Your task to perform on an android device: turn on notifications settings in the gmail app Image 0: 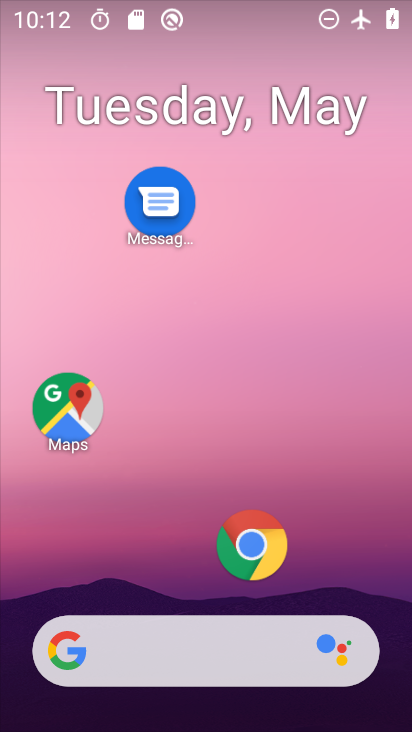
Step 0: drag from (196, 594) to (185, 229)
Your task to perform on an android device: turn on notifications settings in the gmail app Image 1: 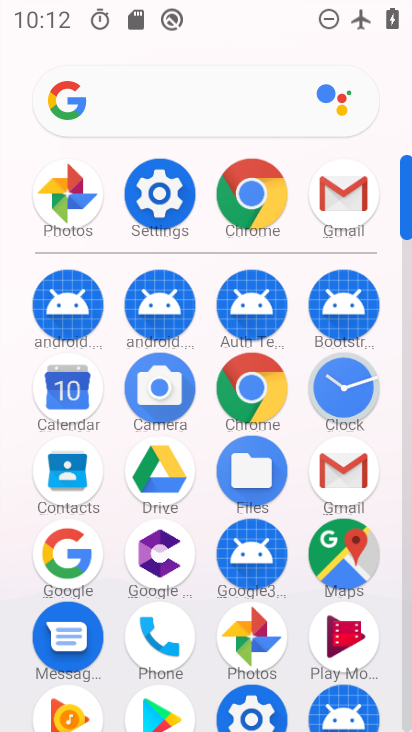
Step 1: click (343, 214)
Your task to perform on an android device: turn on notifications settings in the gmail app Image 2: 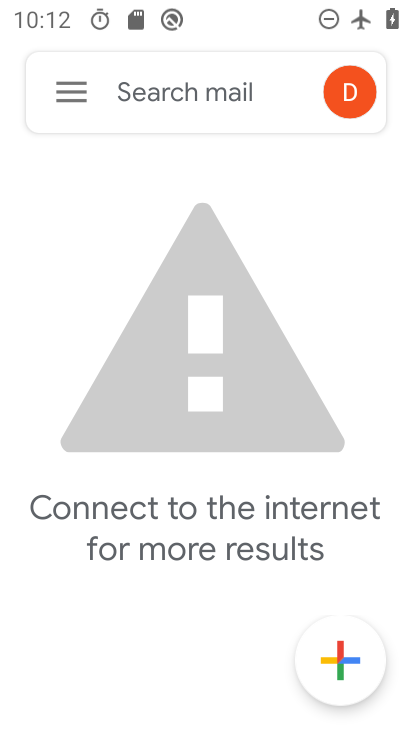
Step 2: click (89, 87)
Your task to perform on an android device: turn on notifications settings in the gmail app Image 3: 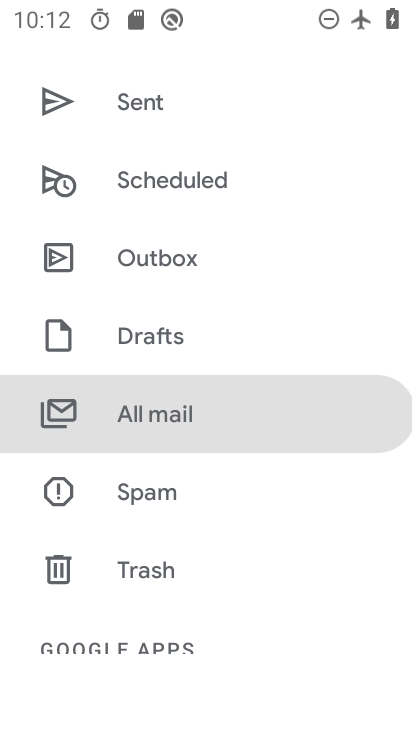
Step 3: drag from (175, 625) to (230, 269)
Your task to perform on an android device: turn on notifications settings in the gmail app Image 4: 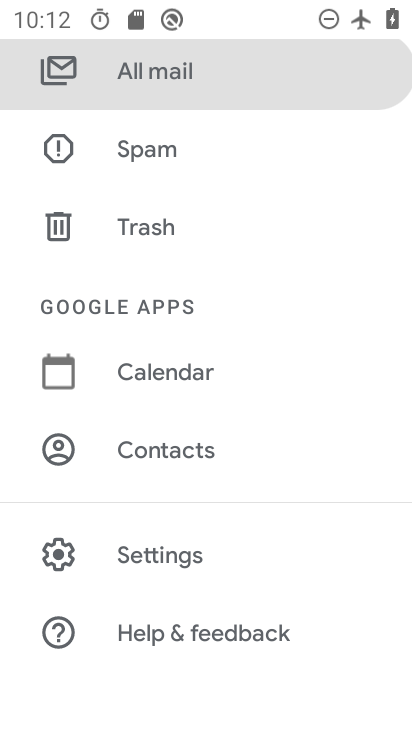
Step 4: click (217, 547)
Your task to perform on an android device: turn on notifications settings in the gmail app Image 5: 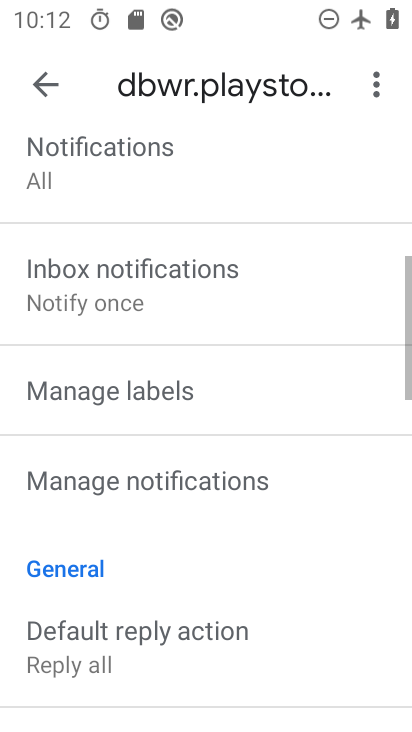
Step 5: drag from (226, 595) to (243, 495)
Your task to perform on an android device: turn on notifications settings in the gmail app Image 6: 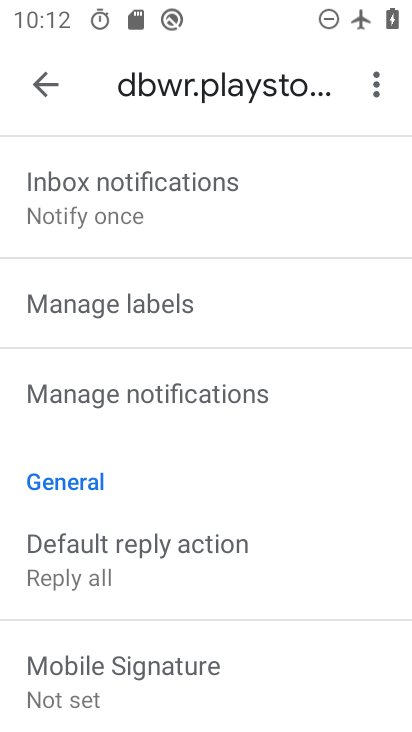
Step 6: click (183, 388)
Your task to perform on an android device: turn on notifications settings in the gmail app Image 7: 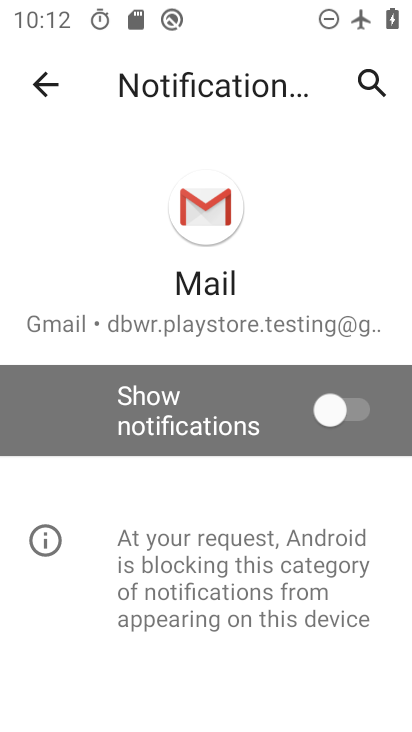
Step 7: click (354, 418)
Your task to perform on an android device: turn on notifications settings in the gmail app Image 8: 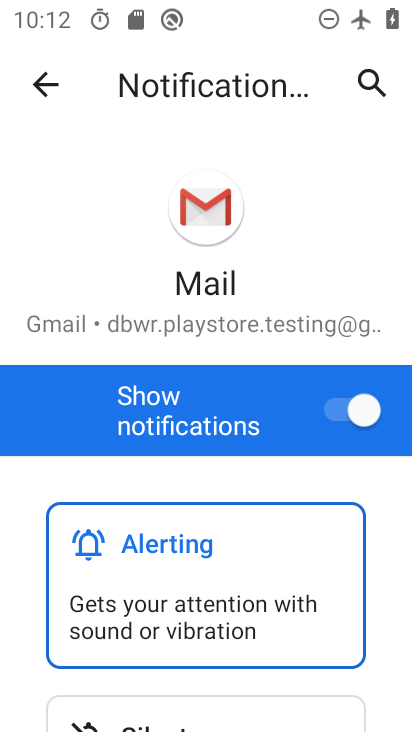
Step 8: task complete